Your task to perform on an android device: turn on priority inbox in the gmail app Image 0: 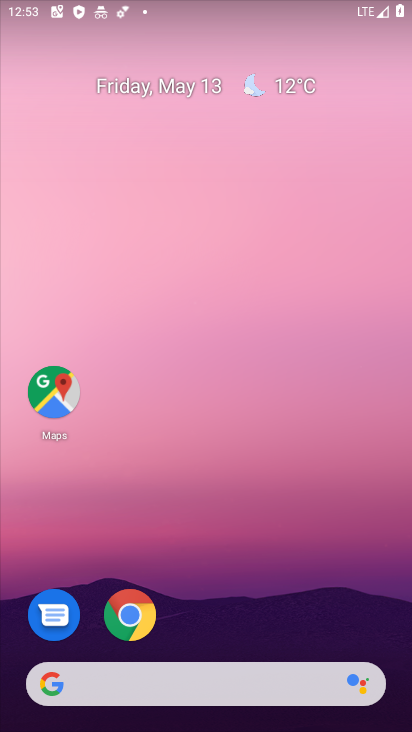
Step 0: drag from (232, 630) to (222, 261)
Your task to perform on an android device: turn on priority inbox in the gmail app Image 1: 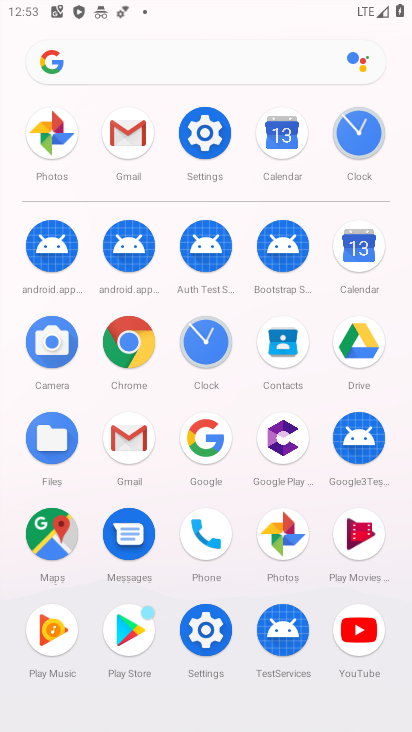
Step 1: click (121, 148)
Your task to perform on an android device: turn on priority inbox in the gmail app Image 2: 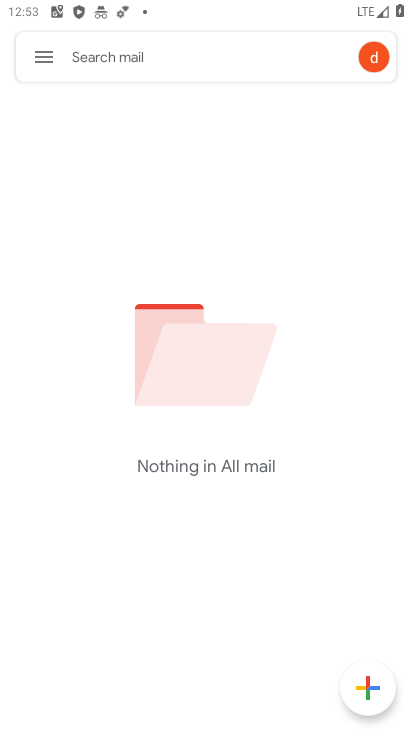
Step 2: click (40, 65)
Your task to perform on an android device: turn on priority inbox in the gmail app Image 3: 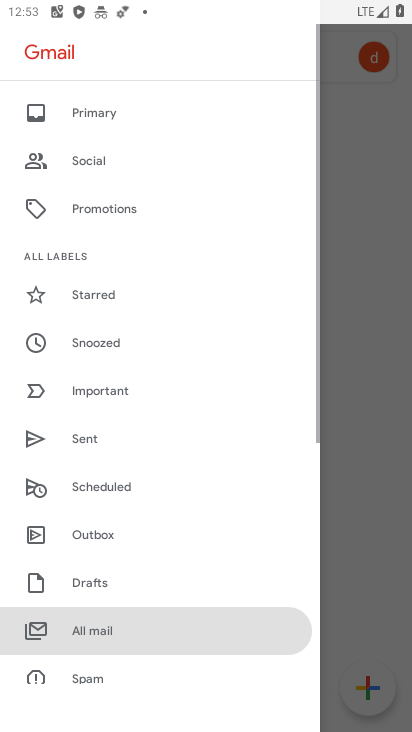
Step 3: drag from (162, 535) to (186, 392)
Your task to perform on an android device: turn on priority inbox in the gmail app Image 4: 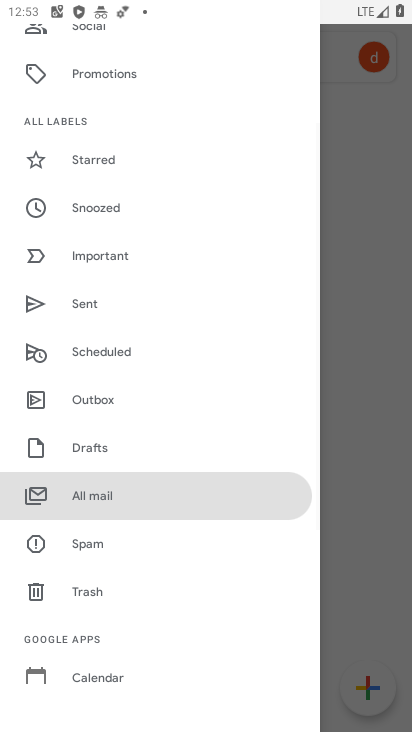
Step 4: drag from (118, 643) to (141, 339)
Your task to perform on an android device: turn on priority inbox in the gmail app Image 5: 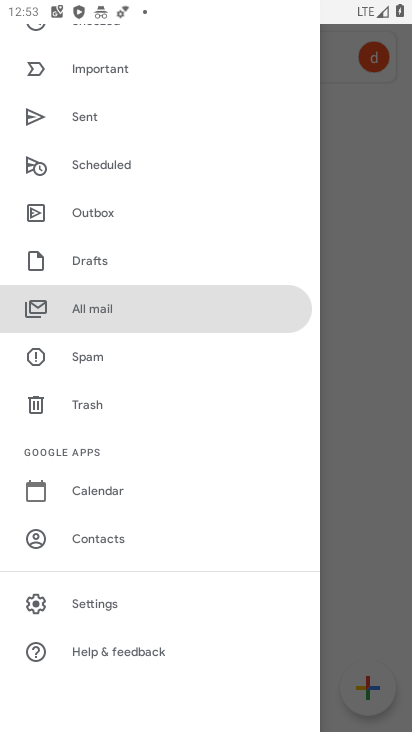
Step 5: click (137, 613)
Your task to perform on an android device: turn on priority inbox in the gmail app Image 6: 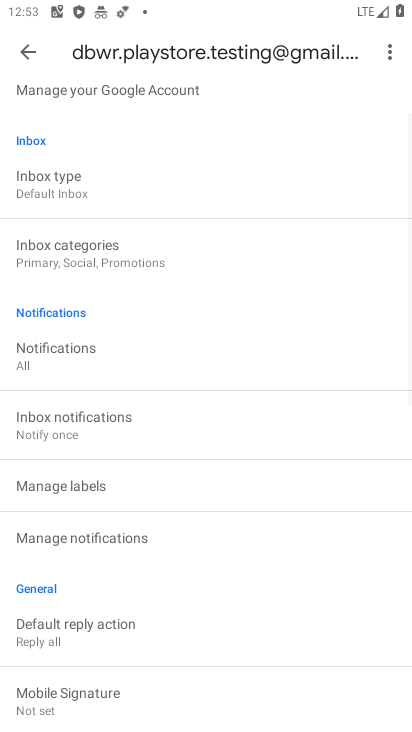
Step 6: click (112, 176)
Your task to perform on an android device: turn on priority inbox in the gmail app Image 7: 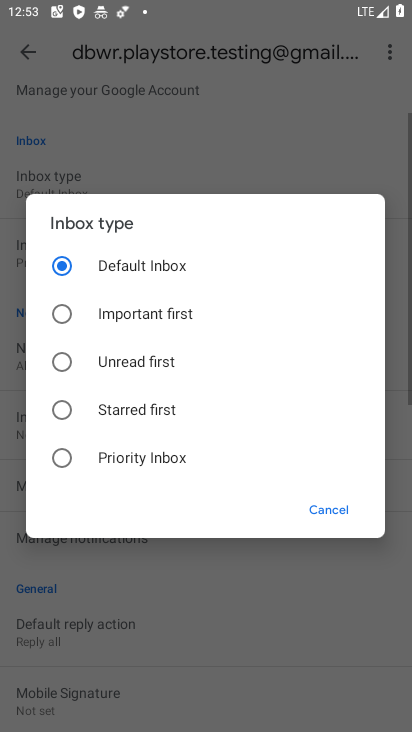
Step 7: click (154, 459)
Your task to perform on an android device: turn on priority inbox in the gmail app Image 8: 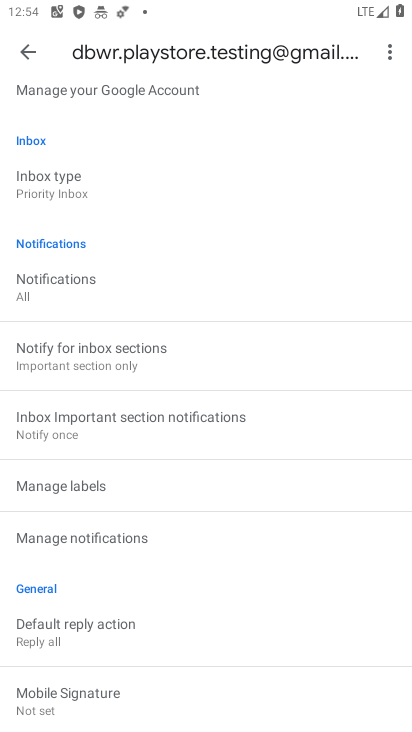
Step 8: task complete